Your task to perform on an android device: add a contact Image 0: 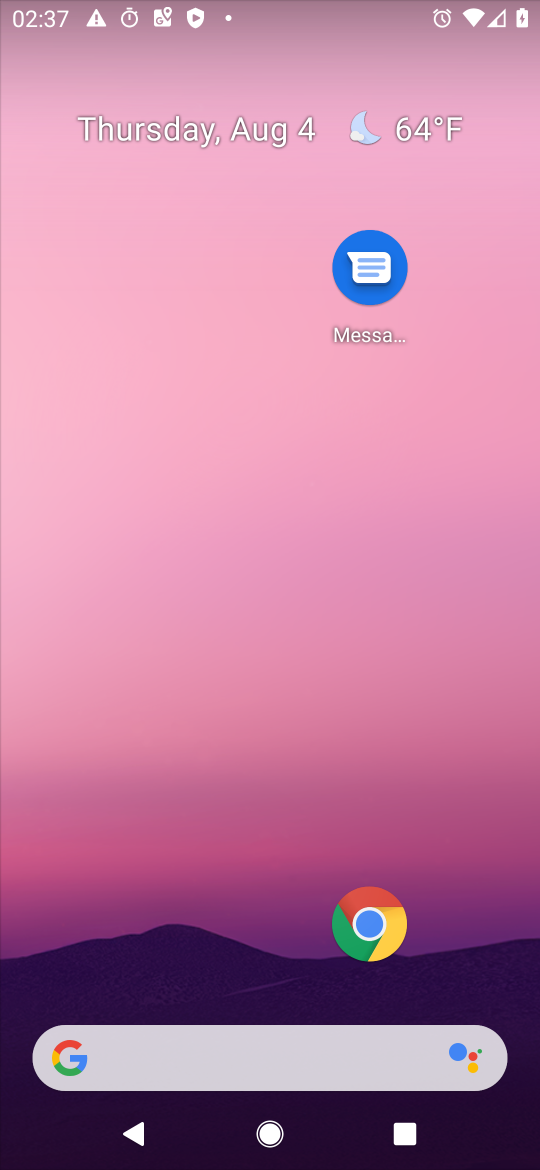
Step 0: drag from (113, 1023) to (341, 161)
Your task to perform on an android device: add a contact Image 1: 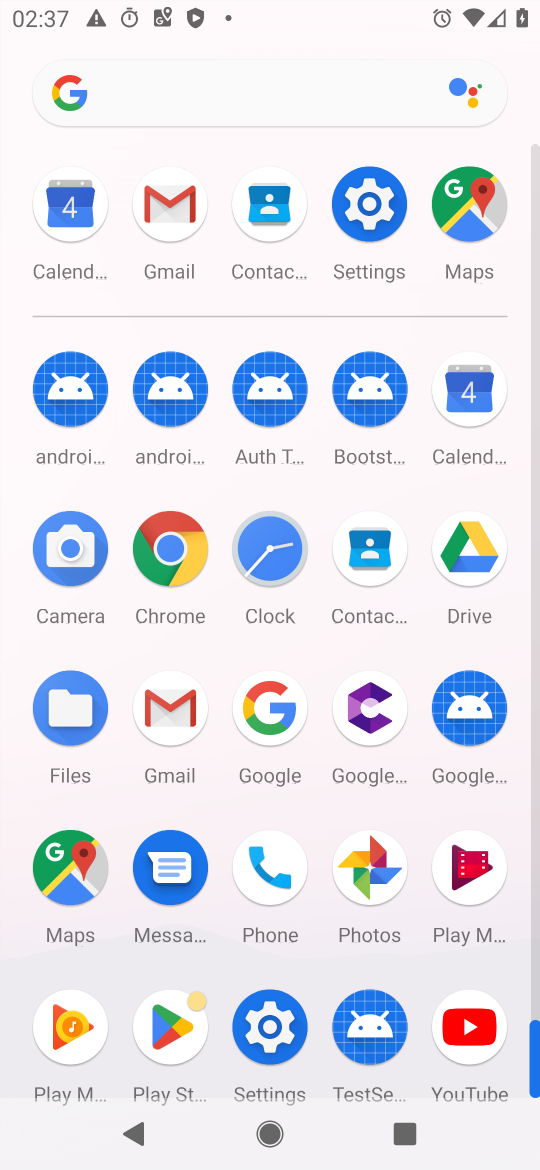
Step 1: click (267, 885)
Your task to perform on an android device: add a contact Image 2: 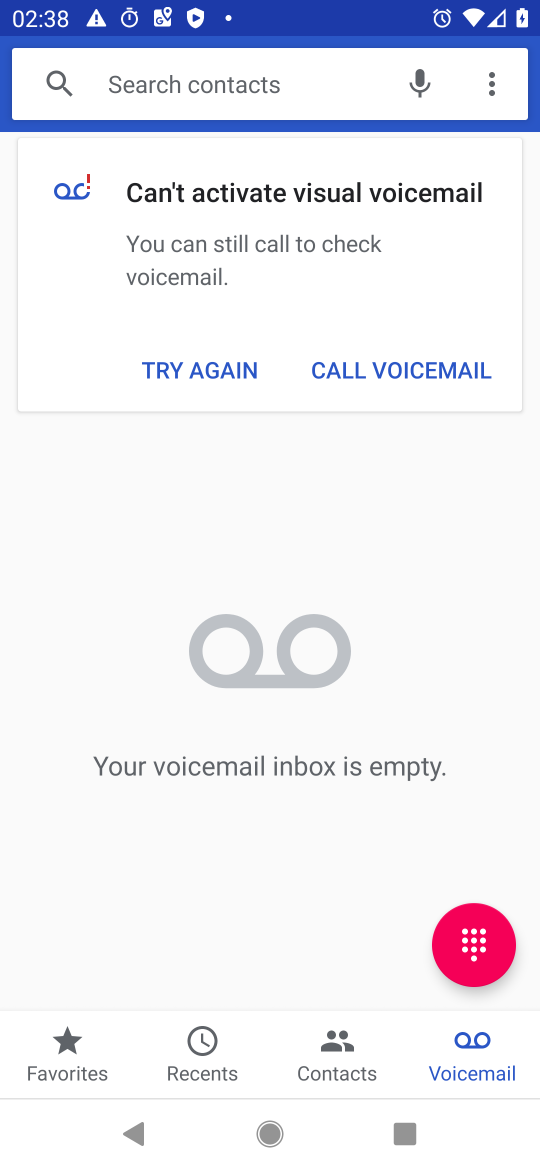
Step 2: click (349, 1040)
Your task to perform on an android device: add a contact Image 3: 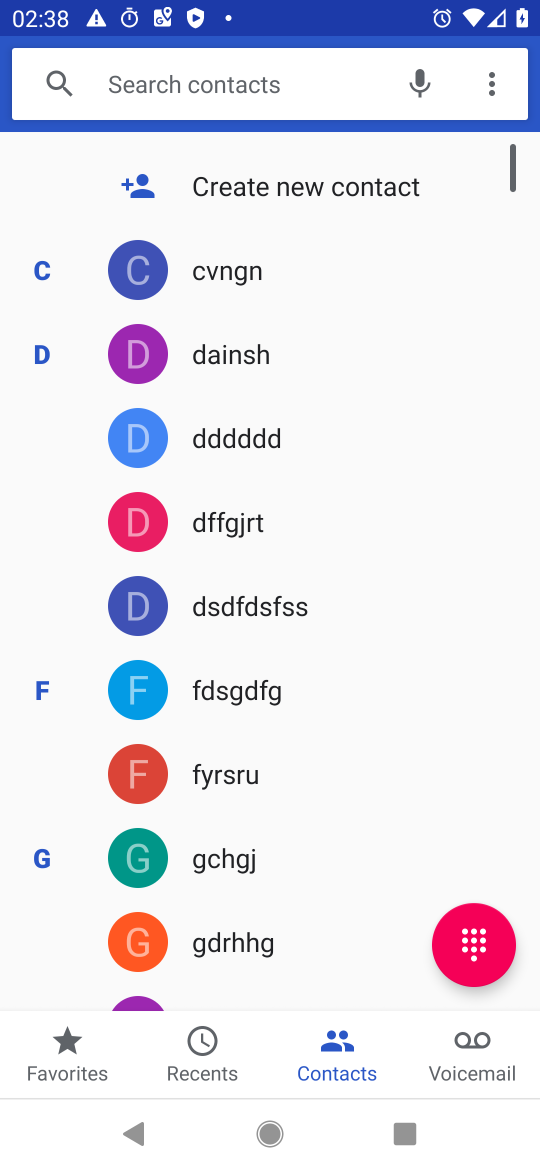
Step 3: click (276, 176)
Your task to perform on an android device: add a contact Image 4: 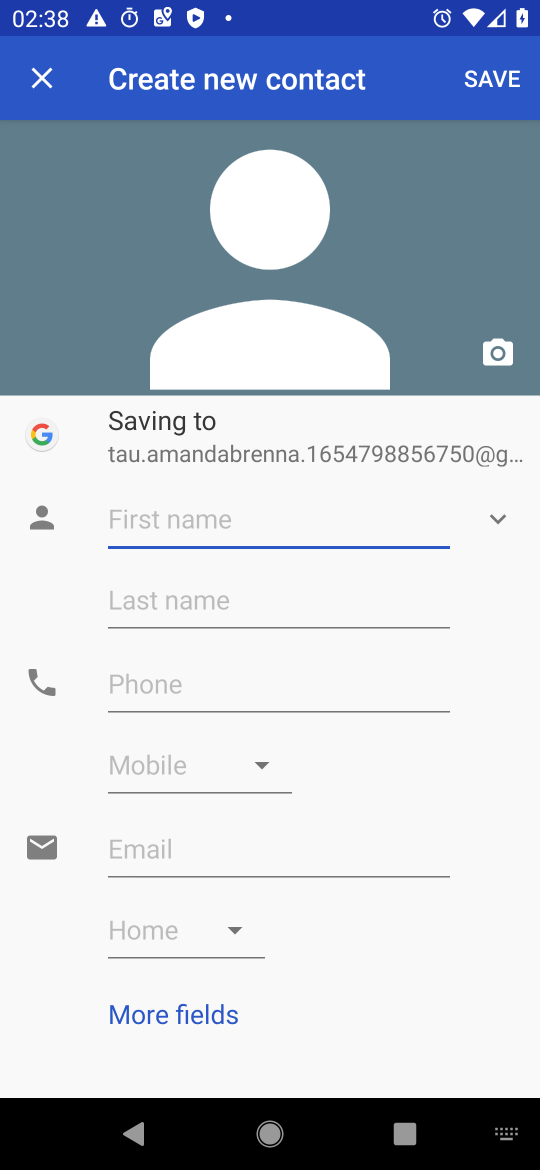
Step 4: type "eth65urte"
Your task to perform on an android device: add a contact Image 5: 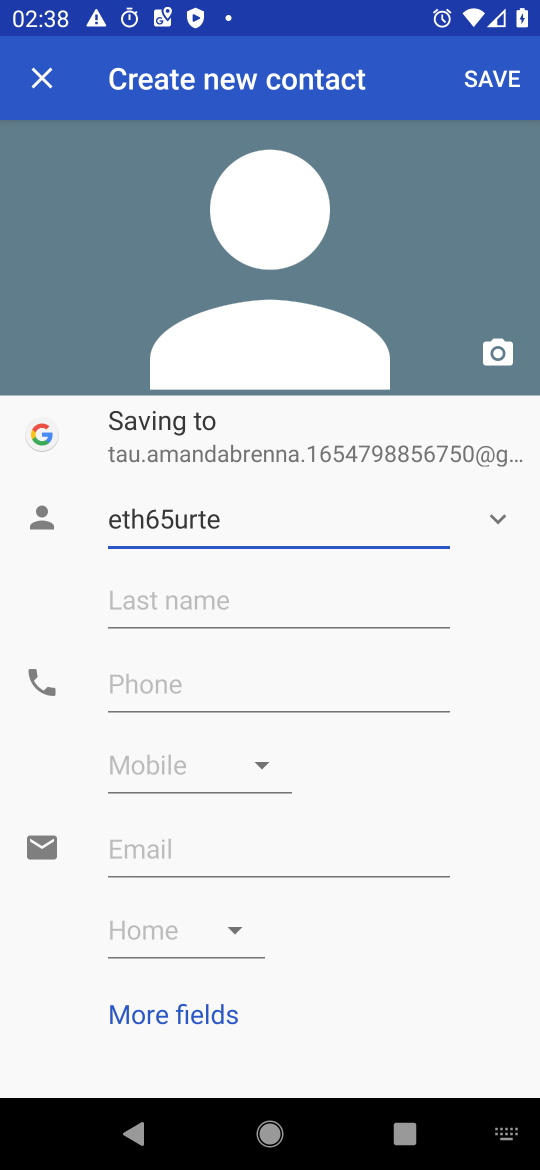
Step 5: click (484, 70)
Your task to perform on an android device: add a contact Image 6: 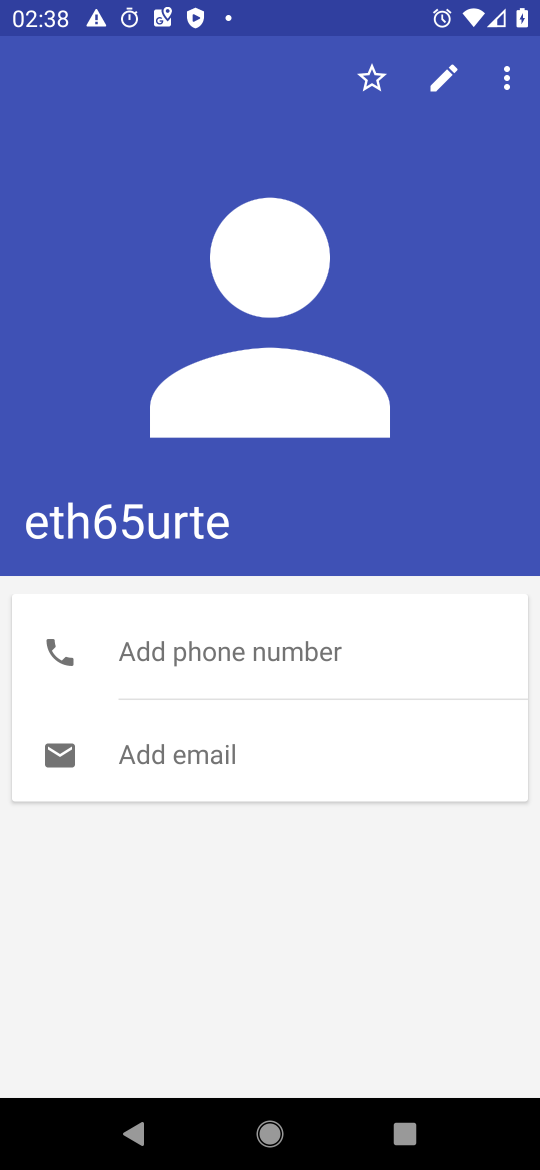
Step 6: task complete